Your task to perform on an android device: Open calendar and show me the fourth week of next month Image 0: 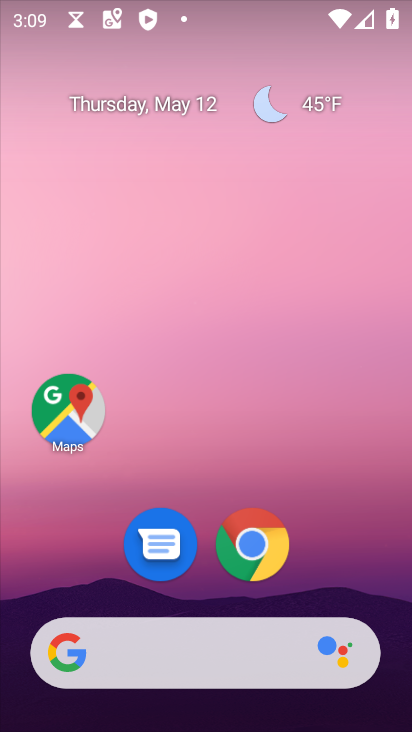
Step 0: drag from (354, 526) to (264, 90)
Your task to perform on an android device: Open calendar and show me the fourth week of next month Image 1: 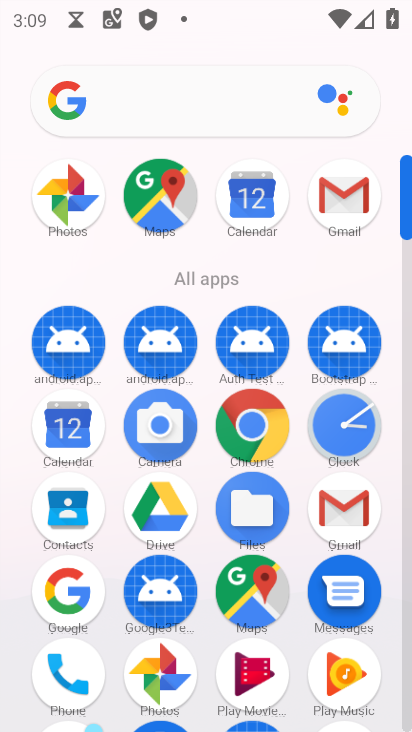
Step 1: click (70, 434)
Your task to perform on an android device: Open calendar and show me the fourth week of next month Image 2: 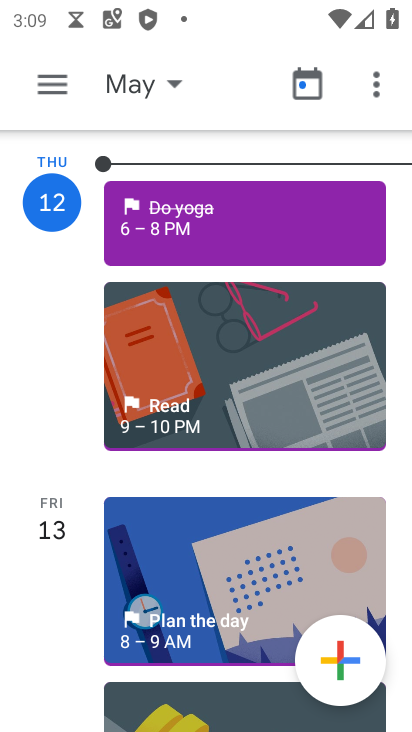
Step 2: click (152, 78)
Your task to perform on an android device: Open calendar and show me the fourth week of next month Image 3: 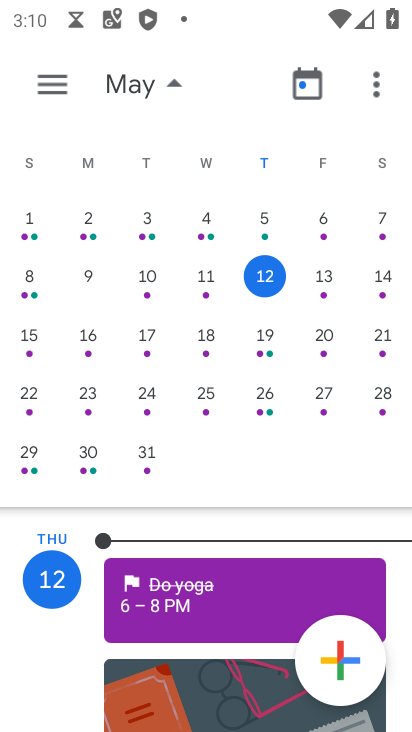
Step 3: drag from (365, 308) to (0, 295)
Your task to perform on an android device: Open calendar and show me the fourth week of next month Image 4: 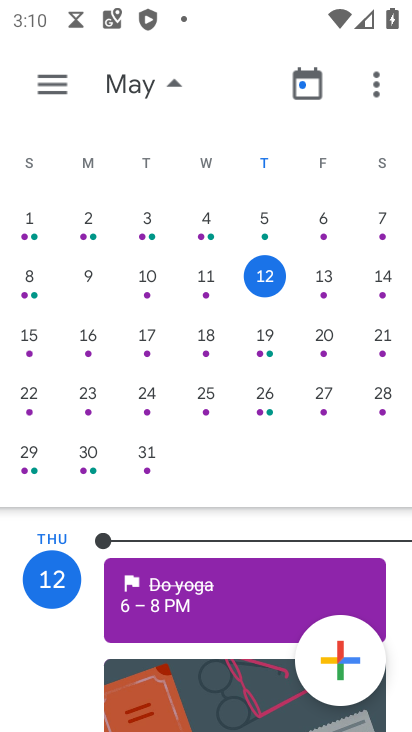
Step 4: drag from (378, 361) to (8, 360)
Your task to perform on an android device: Open calendar and show me the fourth week of next month Image 5: 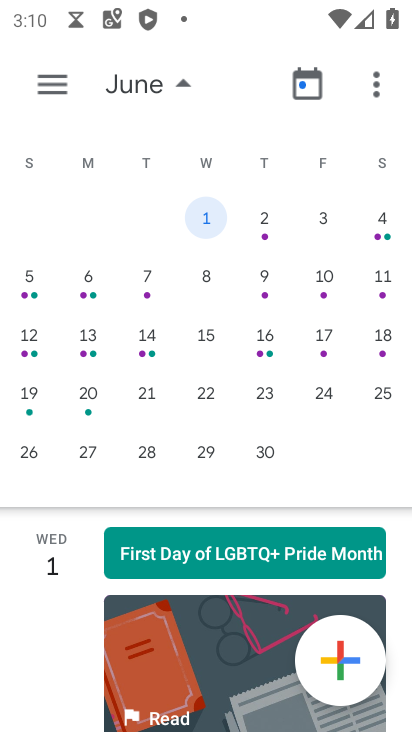
Step 5: click (37, 411)
Your task to perform on an android device: Open calendar and show me the fourth week of next month Image 6: 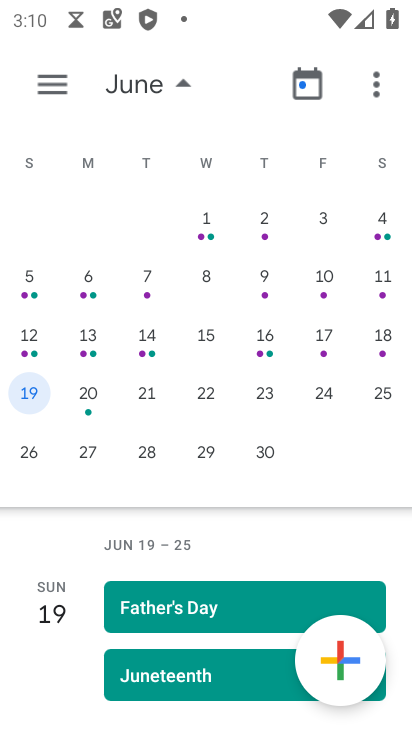
Step 6: task complete